Your task to perform on an android device: See recent photos Image 0: 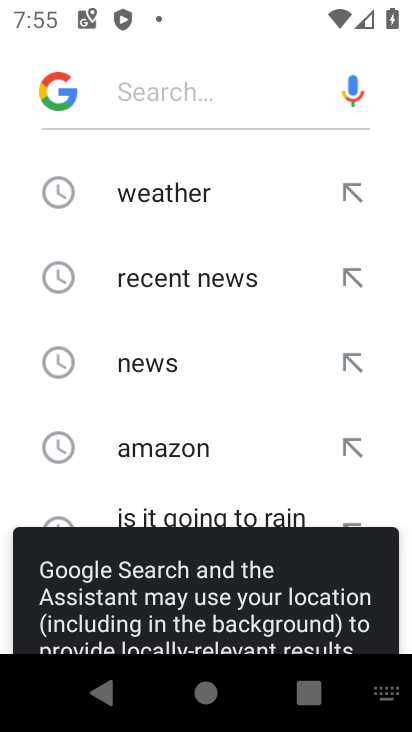
Step 0: press home button
Your task to perform on an android device: See recent photos Image 1: 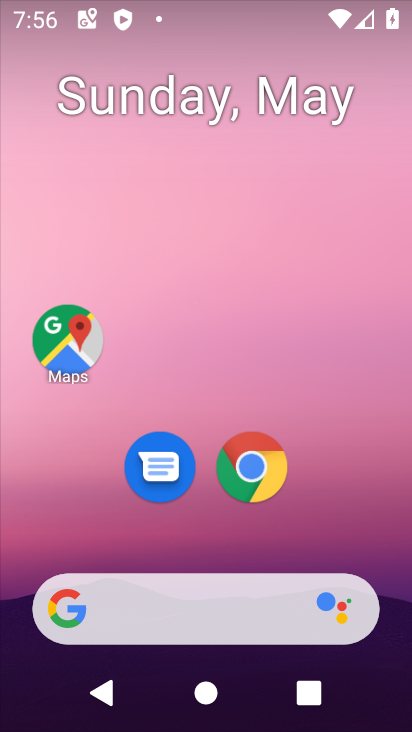
Step 1: drag from (43, 507) to (204, 122)
Your task to perform on an android device: See recent photos Image 2: 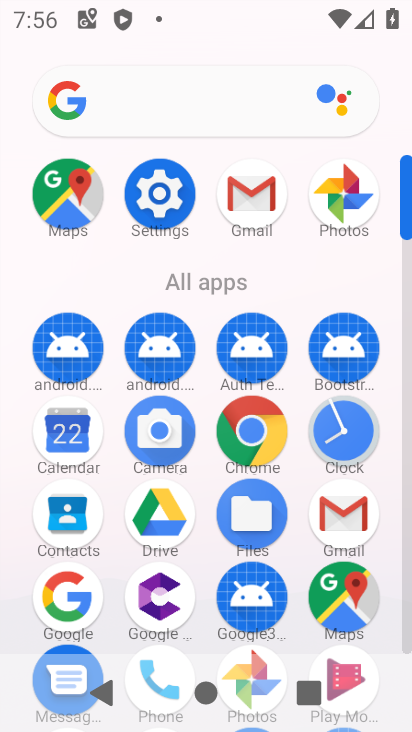
Step 2: click (250, 644)
Your task to perform on an android device: See recent photos Image 3: 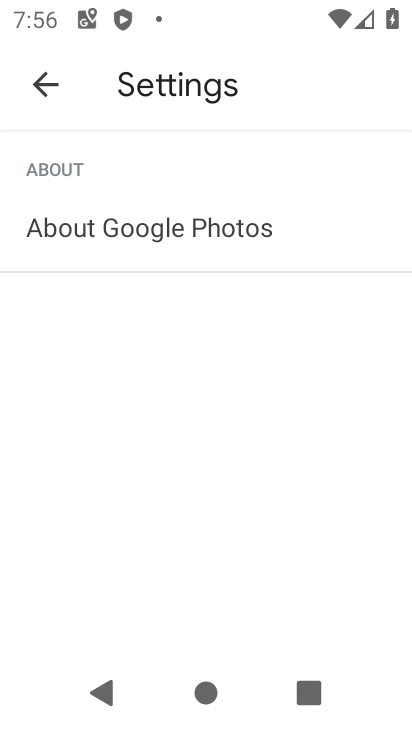
Step 3: click (45, 93)
Your task to perform on an android device: See recent photos Image 4: 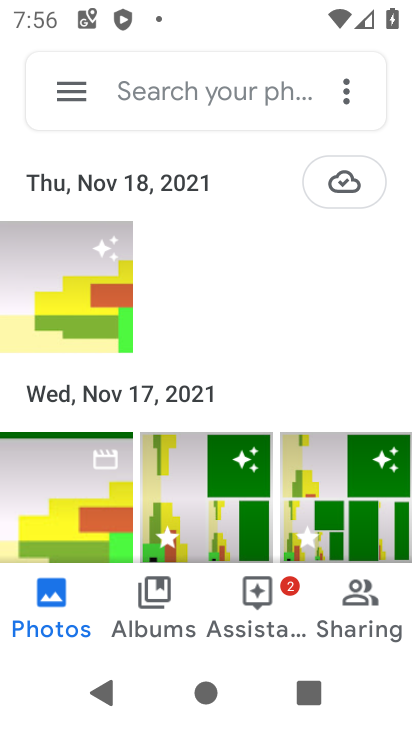
Step 4: task complete